Your task to perform on an android device: toggle notifications settings in the gmail app Image 0: 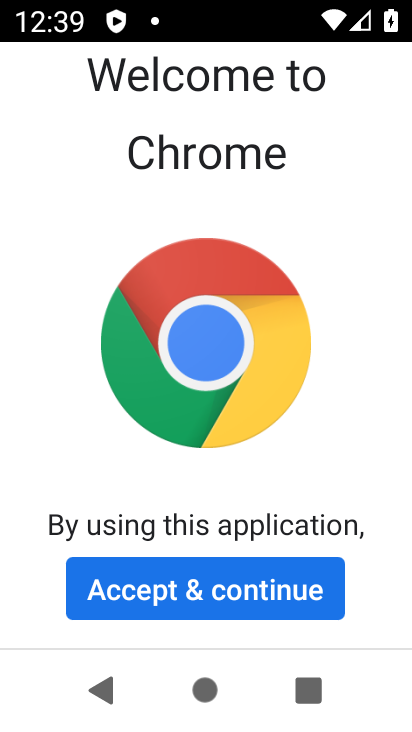
Step 0: press home button
Your task to perform on an android device: toggle notifications settings in the gmail app Image 1: 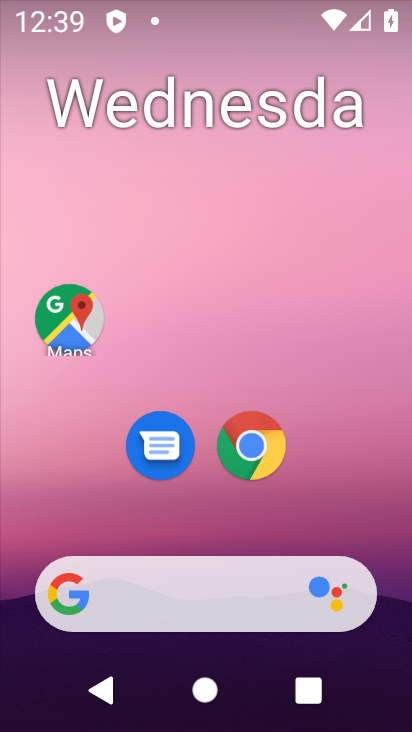
Step 1: drag from (345, 473) to (320, 82)
Your task to perform on an android device: toggle notifications settings in the gmail app Image 2: 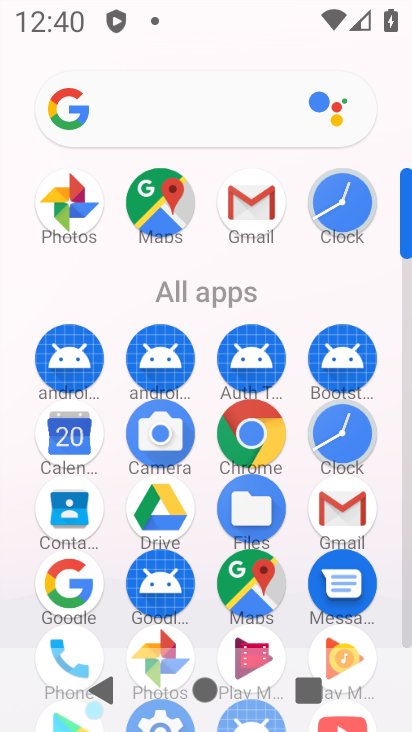
Step 2: click (256, 199)
Your task to perform on an android device: toggle notifications settings in the gmail app Image 3: 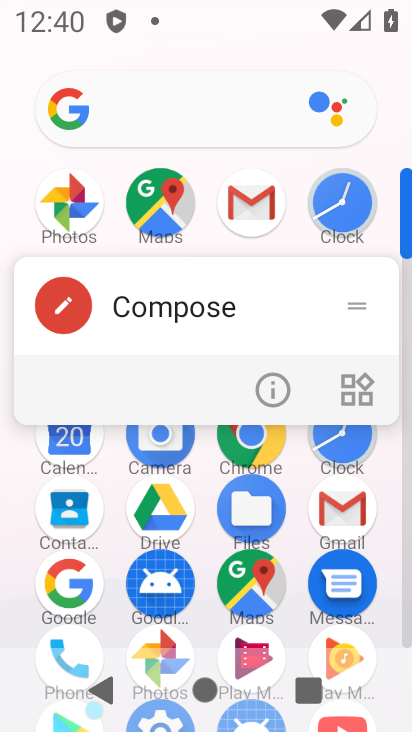
Step 3: click (256, 199)
Your task to perform on an android device: toggle notifications settings in the gmail app Image 4: 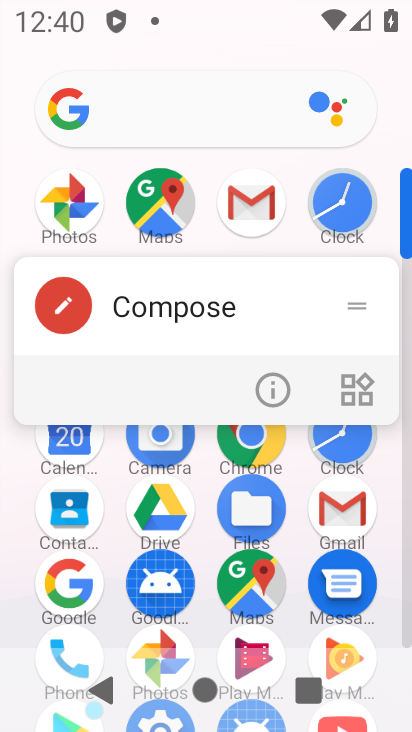
Step 4: click (257, 202)
Your task to perform on an android device: toggle notifications settings in the gmail app Image 5: 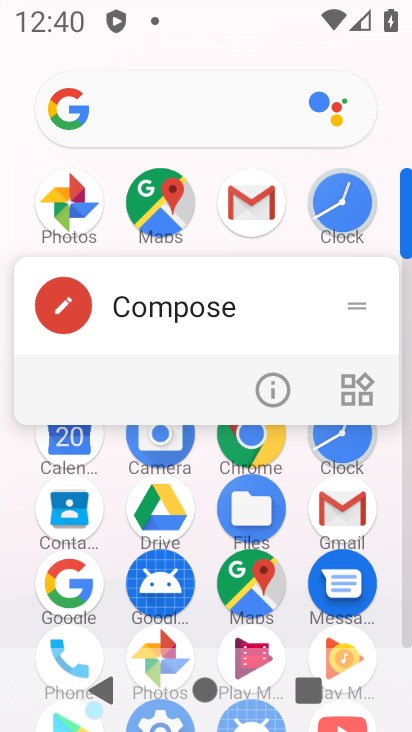
Step 5: click (231, 186)
Your task to perform on an android device: toggle notifications settings in the gmail app Image 6: 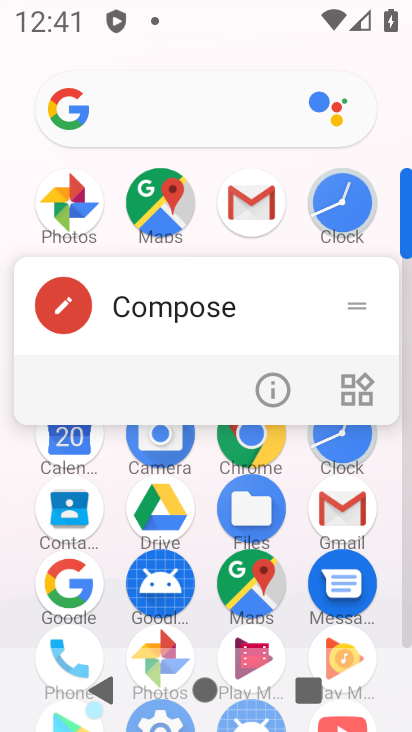
Step 6: click (230, 186)
Your task to perform on an android device: toggle notifications settings in the gmail app Image 7: 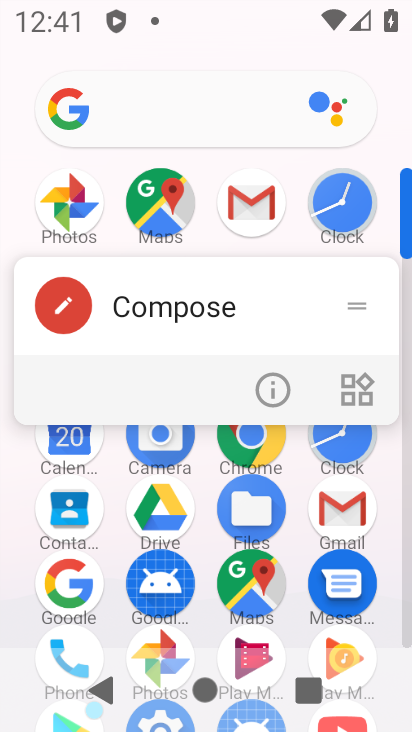
Step 7: click (230, 187)
Your task to perform on an android device: toggle notifications settings in the gmail app Image 8: 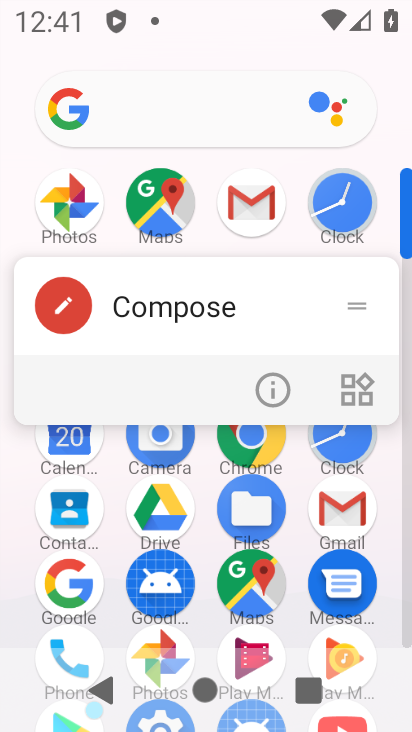
Step 8: click (336, 505)
Your task to perform on an android device: toggle notifications settings in the gmail app Image 9: 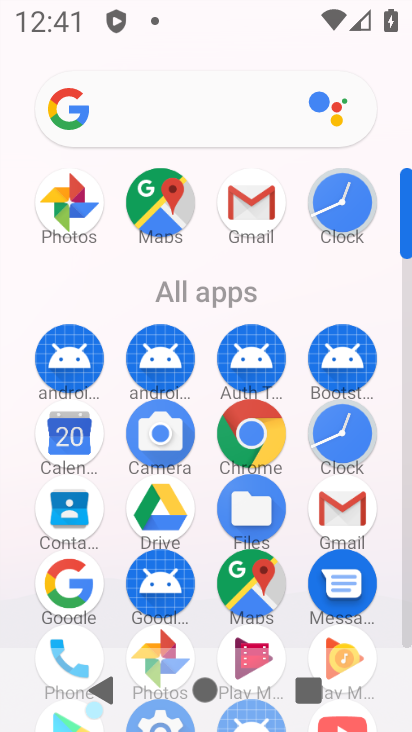
Step 9: click (336, 505)
Your task to perform on an android device: toggle notifications settings in the gmail app Image 10: 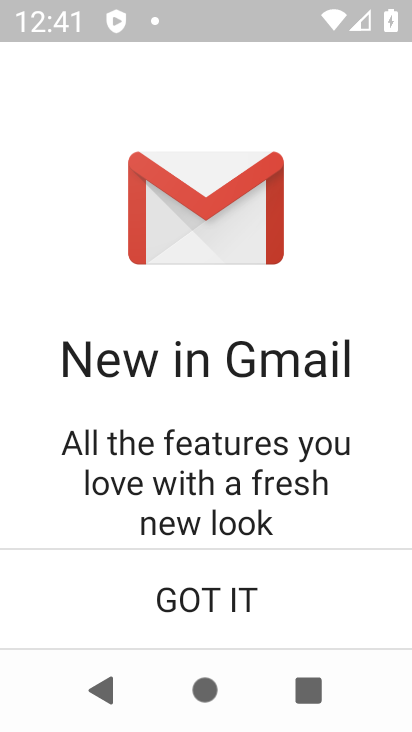
Step 10: click (264, 588)
Your task to perform on an android device: toggle notifications settings in the gmail app Image 11: 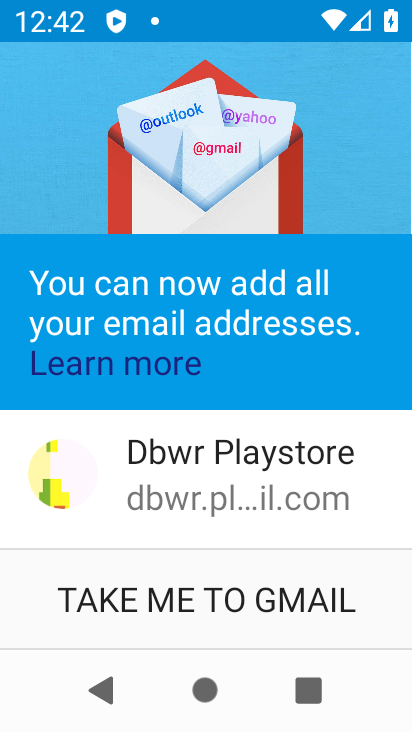
Step 11: click (263, 588)
Your task to perform on an android device: toggle notifications settings in the gmail app Image 12: 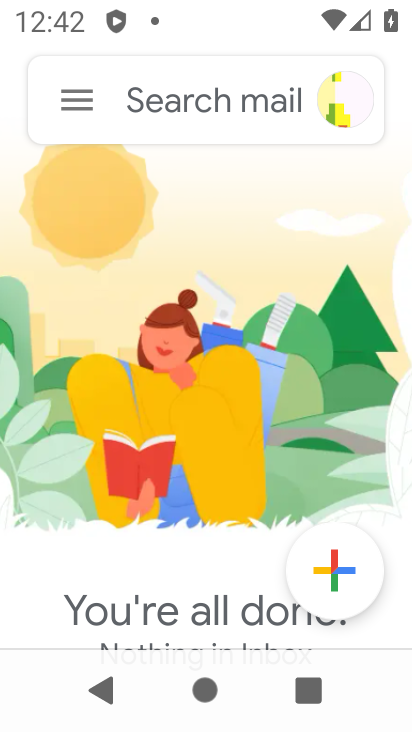
Step 12: click (87, 95)
Your task to perform on an android device: toggle notifications settings in the gmail app Image 13: 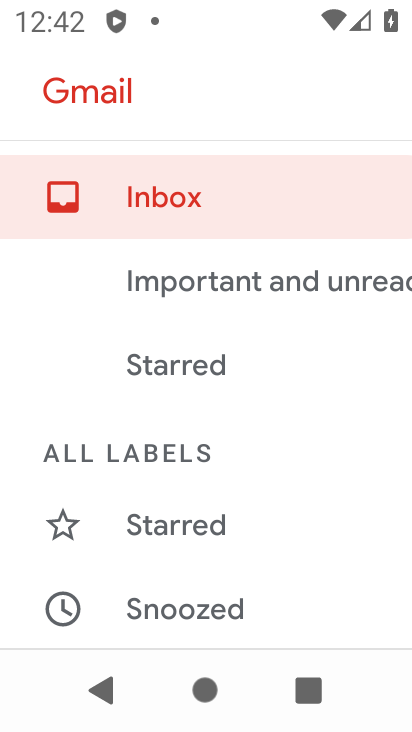
Step 13: drag from (194, 515) to (293, 0)
Your task to perform on an android device: toggle notifications settings in the gmail app Image 14: 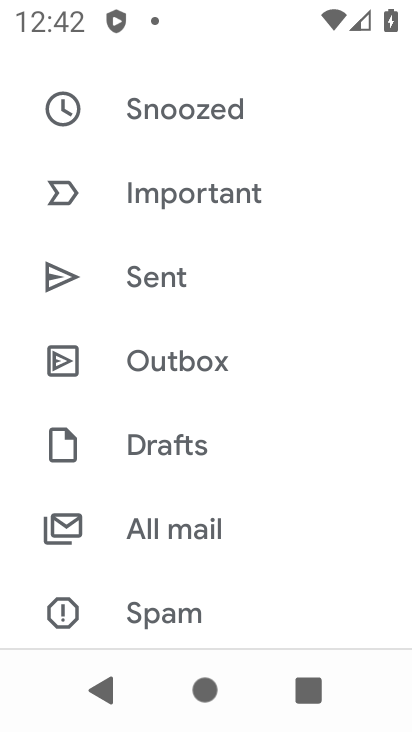
Step 14: drag from (233, 528) to (213, 56)
Your task to perform on an android device: toggle notifications settings in the gmail app Image 15: 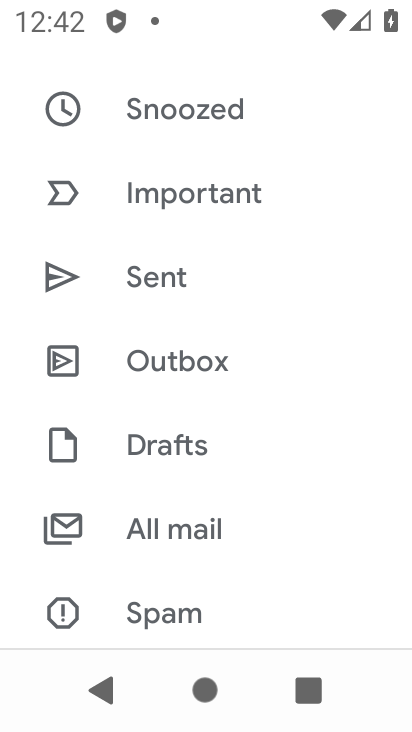
Step 15: drag from (226, 554) to (231, 125)
Your task to perform on an android device: toggle notifications settings in the gmail app Image 16: 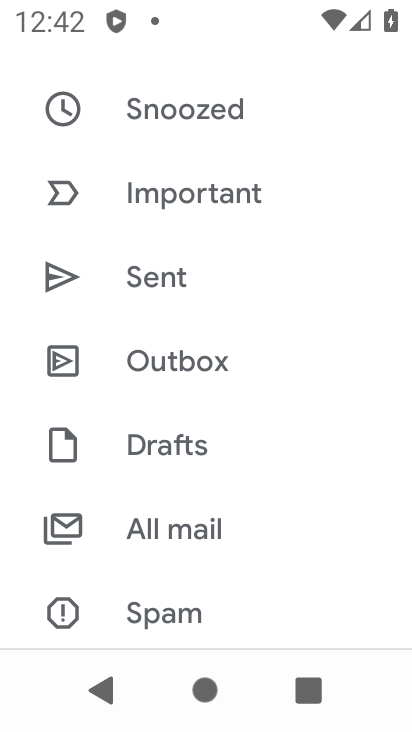
Step 16: drag from (173, 576) to (238, 158)
Your task to perform on an android device: toggle notifications settings in the gmail app Image 17: 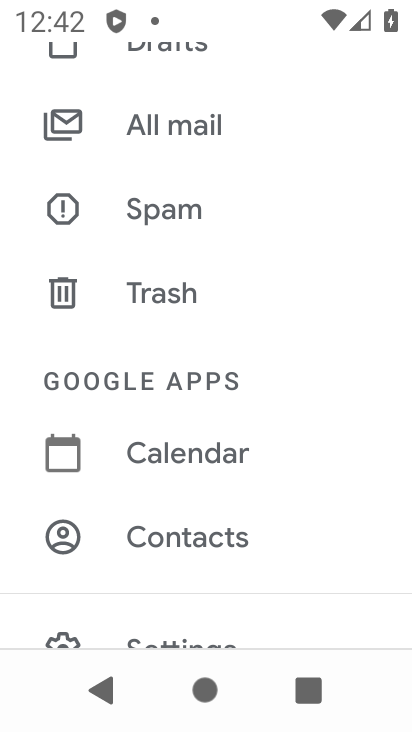
Step 17: drag from (179, 454) to (198, 203)
Your task to perform on an android device: toggle notifications settings in the gmail app Image 18: 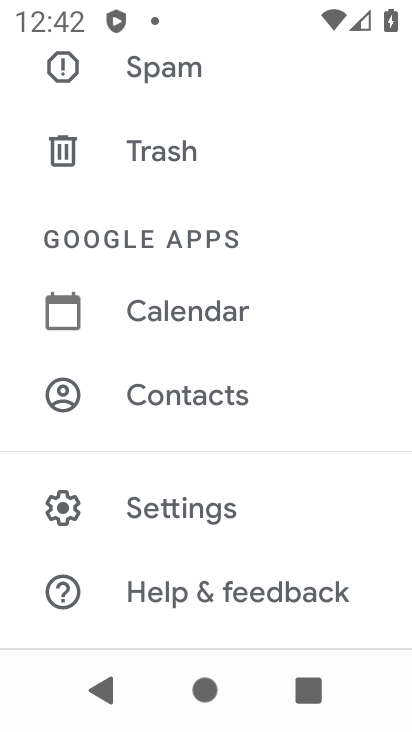
Step 18: click (222, 511)
Your task to perform on an android device: toggle notifications settings in the gmail app Image 19: 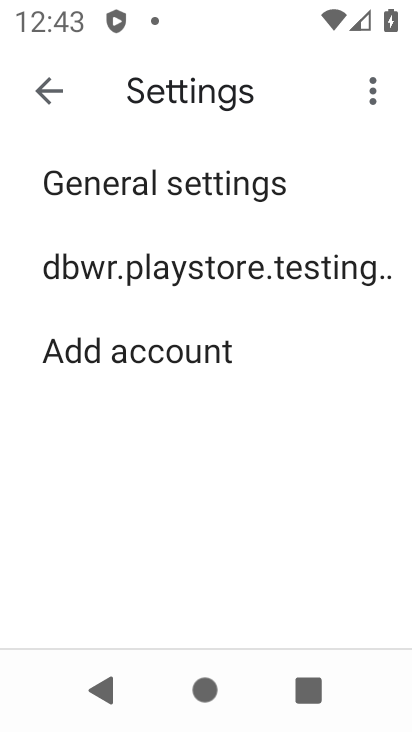
Step 19: click (236, 279)
Your task to perform on an android device: toggle notifications settings in the gmail app Image 20: 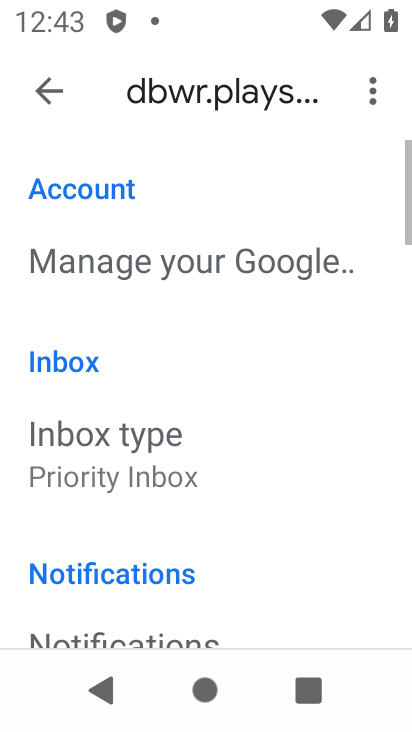
Step 20: drag from (212, 558) to (271, 105)
Your task to perform on an android device: toggle notifications settings in the gmail app Image 21: 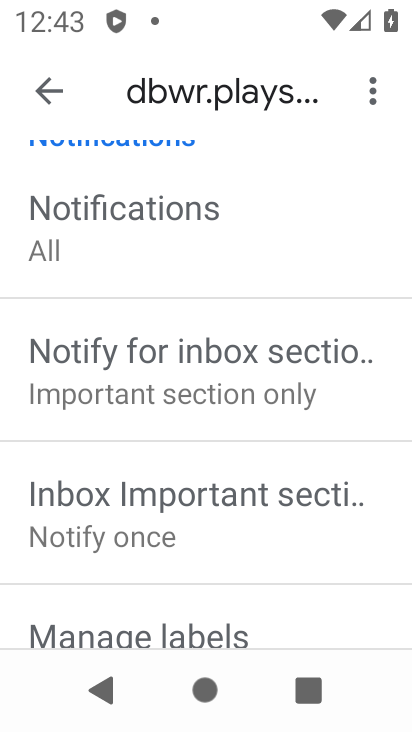
Step 21: drag from (243, 535) to (286, 323)
Your task to perform on an android device: toggle notifications settings in the gmail app Image 22: 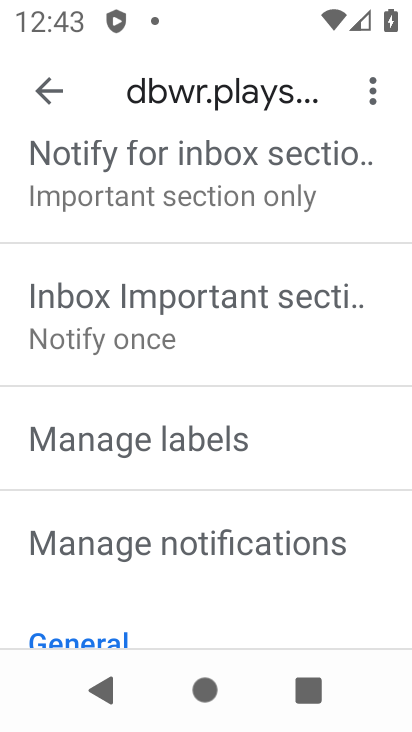
Step 22: click (231, 529)
Your task to perform on an android device: toggle notifications settings in the gmail app Image 23: 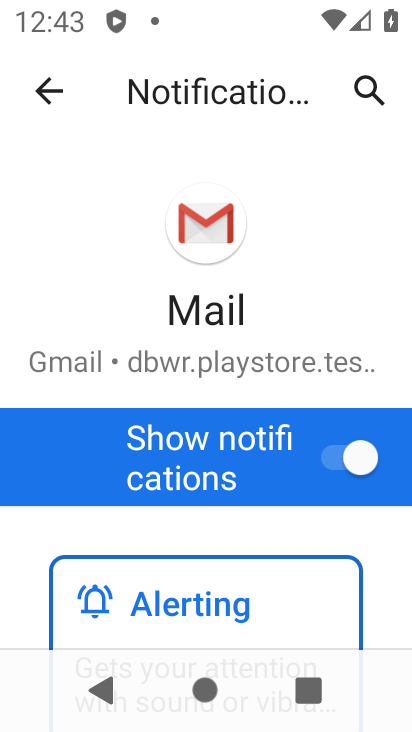
Step 23: drag from (244, 504) to (269, 115)
Your task to perform on an android device: toggle notifications settings in the gmail app Image 24: 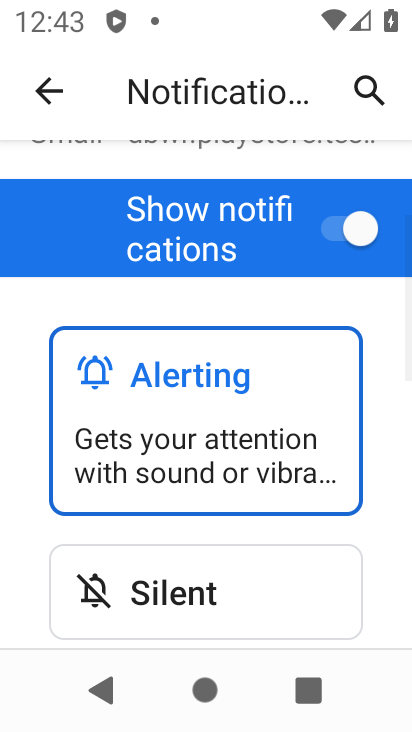
Step 24: drag from (257, 467) to (275, 273)
Your task to perform on an android device: toggle notifications settings in the gmail app Image 25: 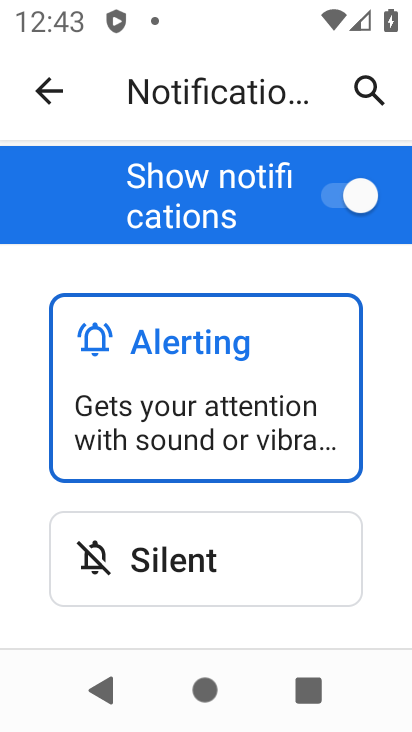
Step 25: click (323, 178)
Your task to perform on an android device: toggle notifications settings in the gmail app Image 26: 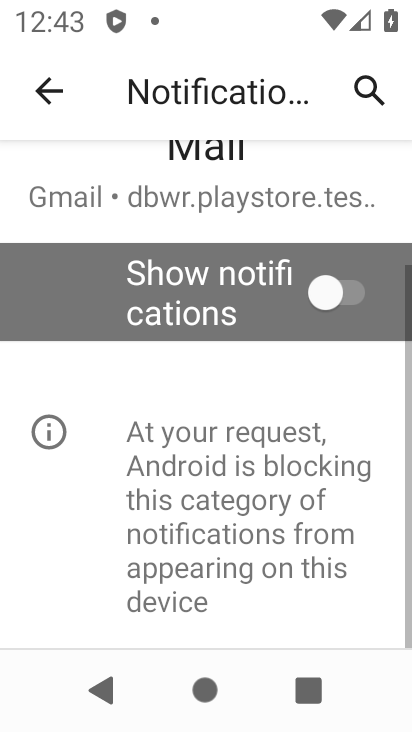
Step 26: task complete